Your task to perform on an android device: How much does the new iPad cost? Image 0: 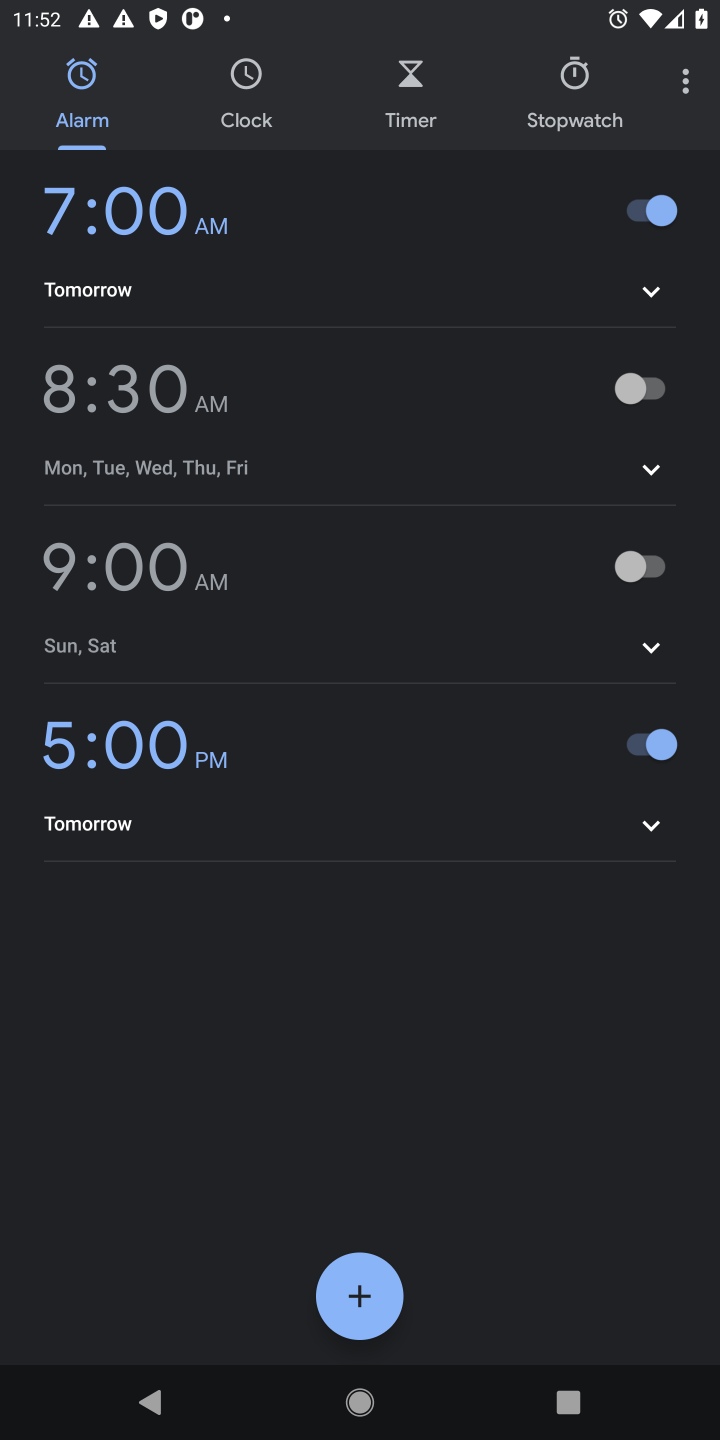
Step 0: press home button
Your task to perform on an android device: How much does the new iPad cost? Image 1: 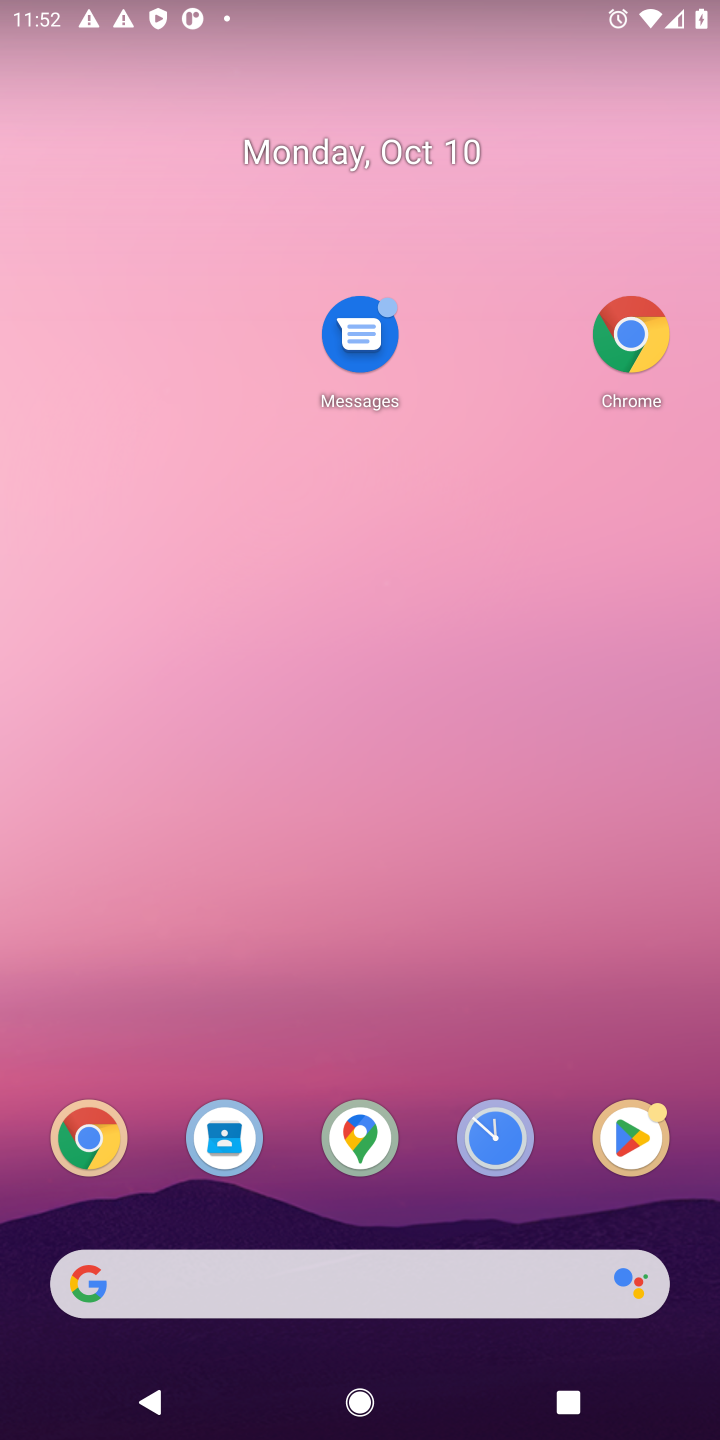
Step 1: click (626, 343)
Your task to perform on an android device: How much does the new iPad cost? Image 2: 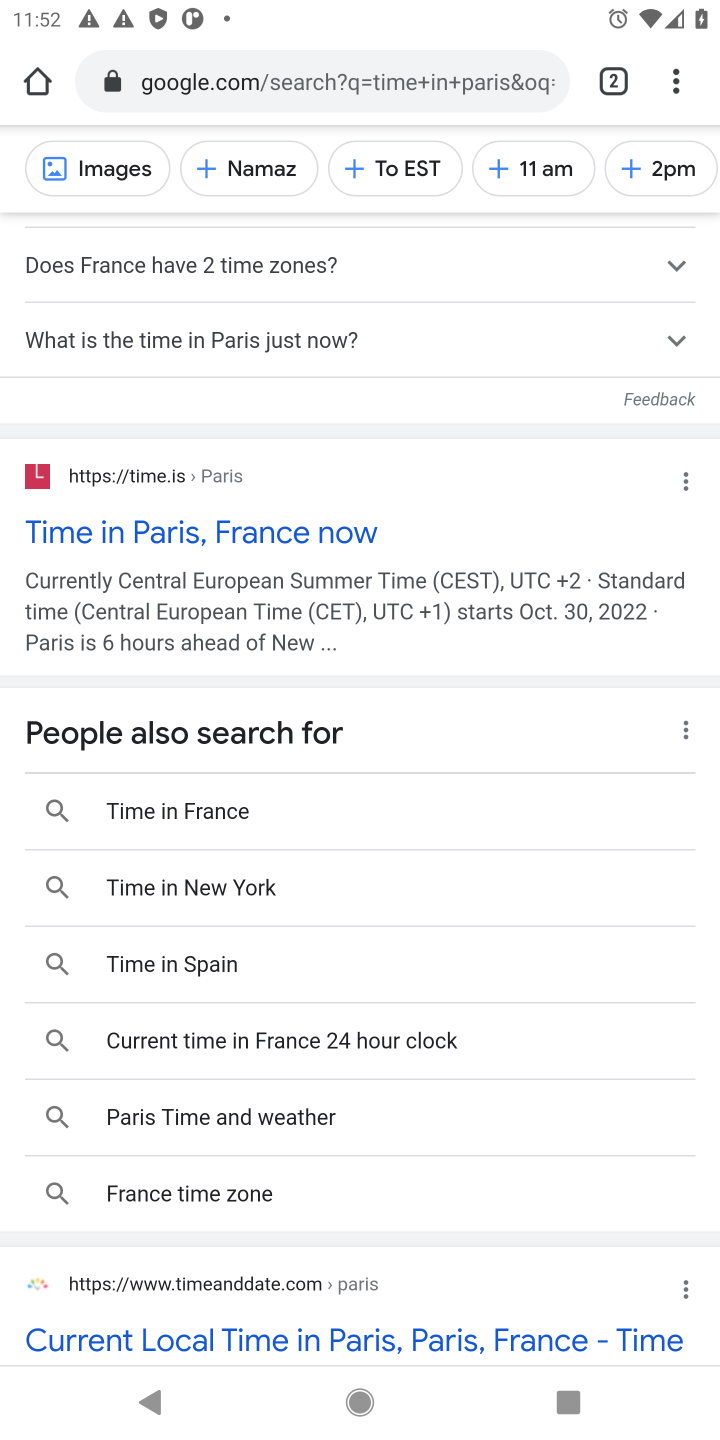
Step 2: click (282, 84)
Your task to perform on an android device: How much does the new iPad cost? Image 3: 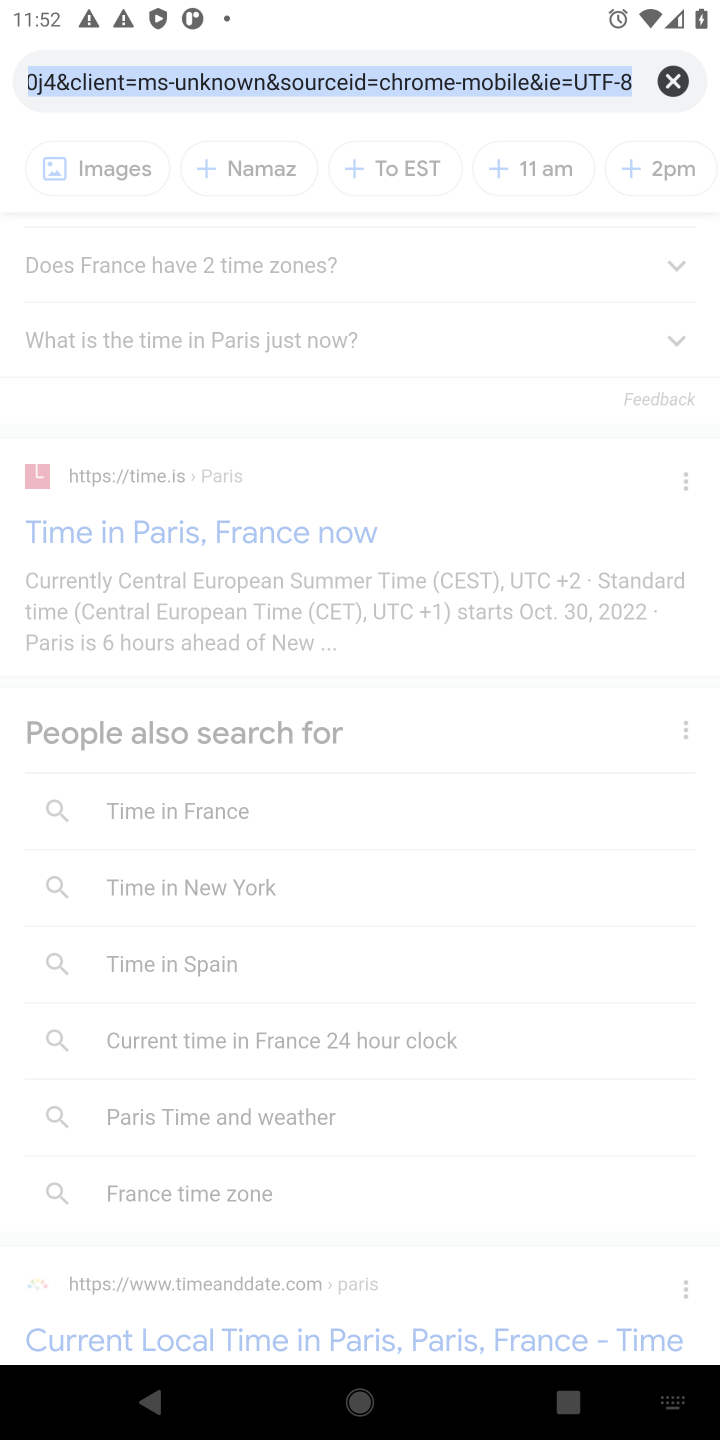
Step 3: type "cost of new ipad"
Your task to perform on an android device: How much does the new iPad cost? Image 4: 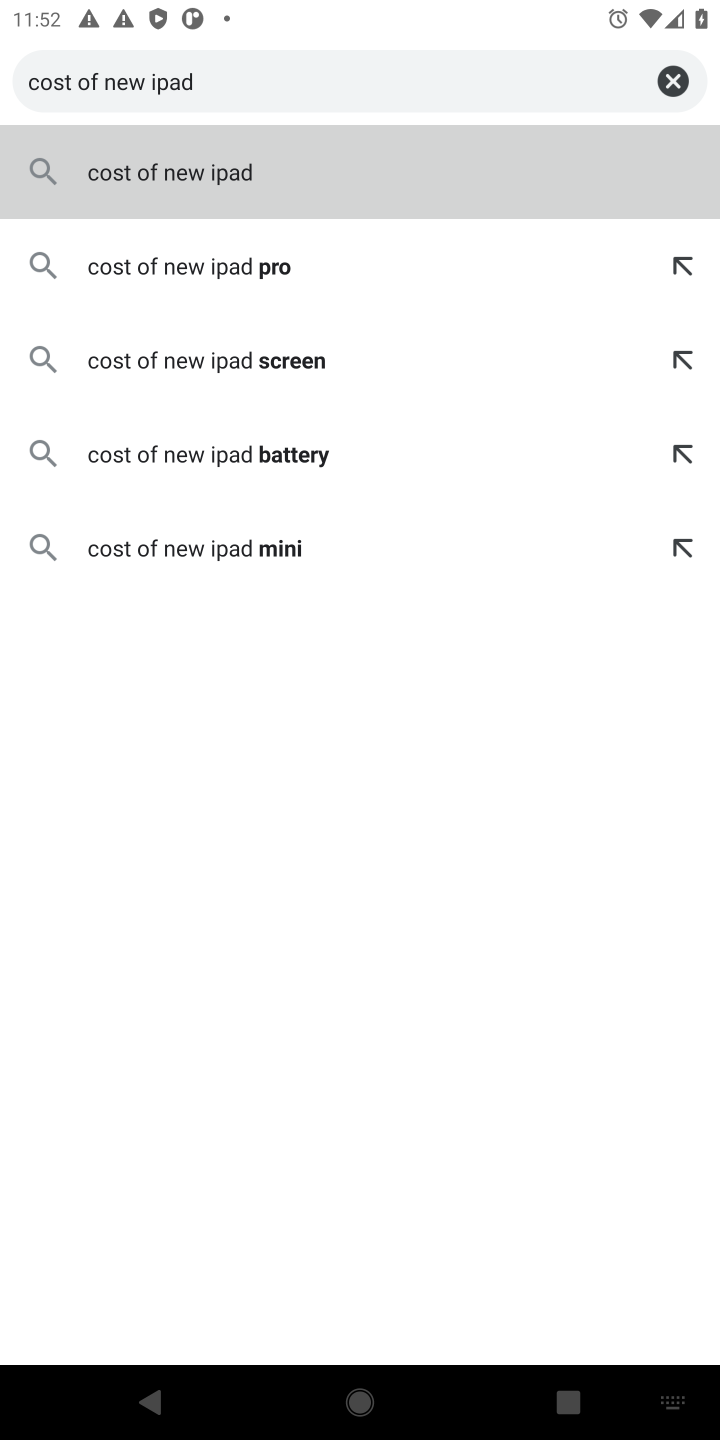
Step 4: type ""
Your task to perform on an android device: How much does the new iPad cost? Image 5: 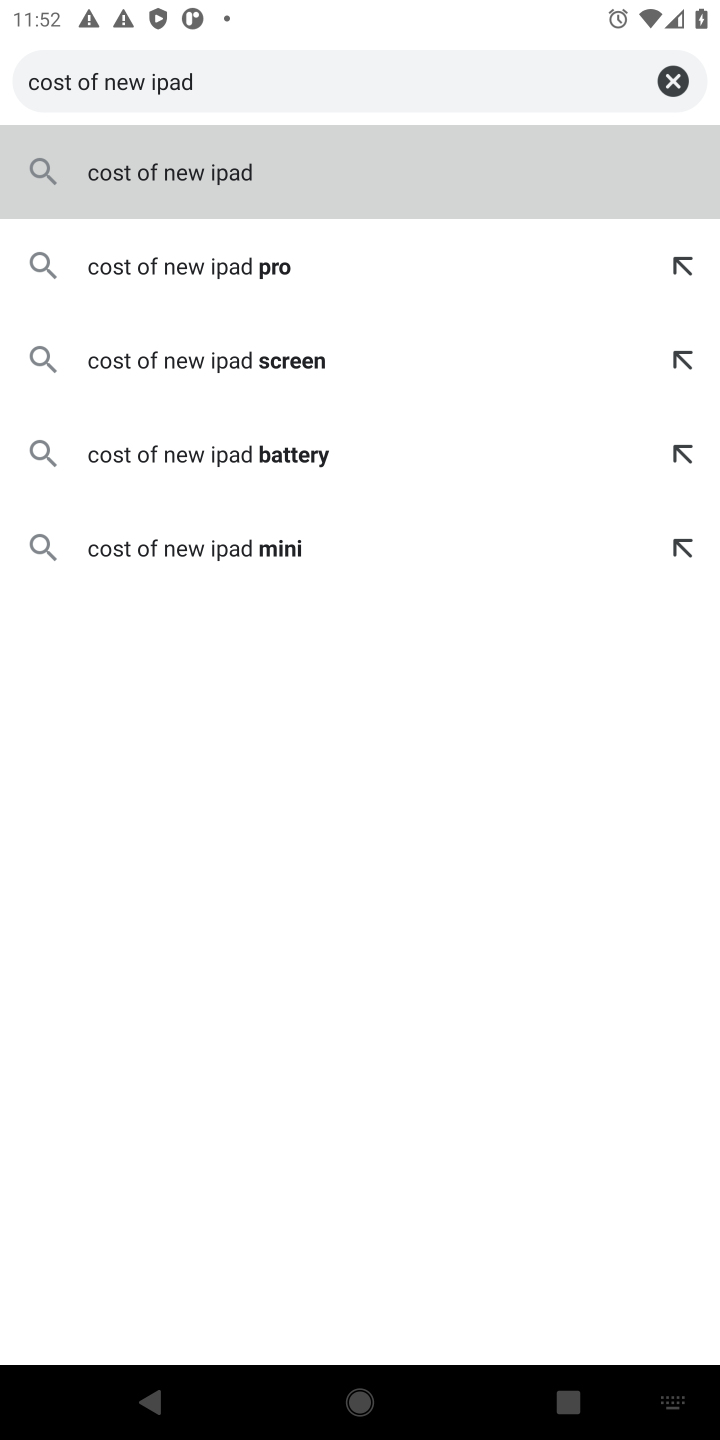
Step 5: press enter
Your task to perform on an android device: How much does the new iPad cost? Image 6: 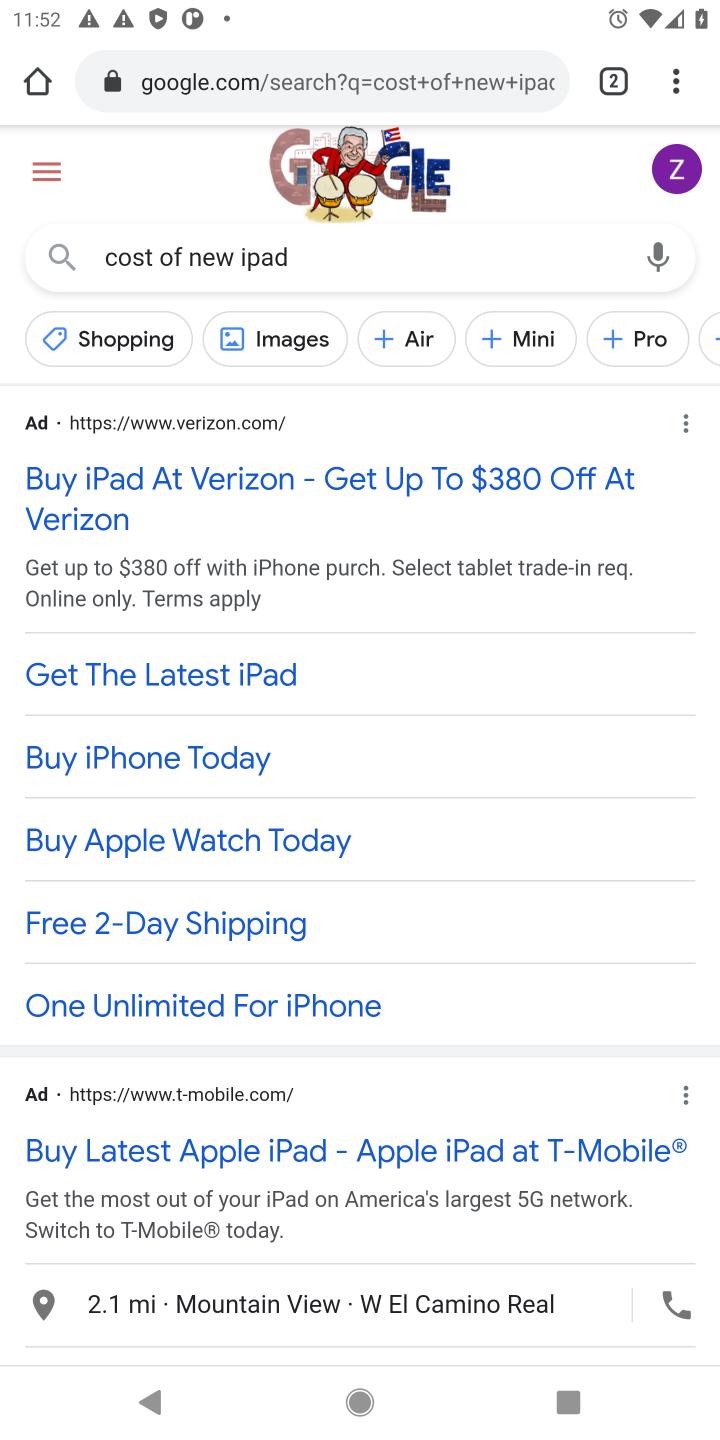
Step 6: click (149, 341)
Your task to perform on an android device: How much does the new iPad cost? Image 7: 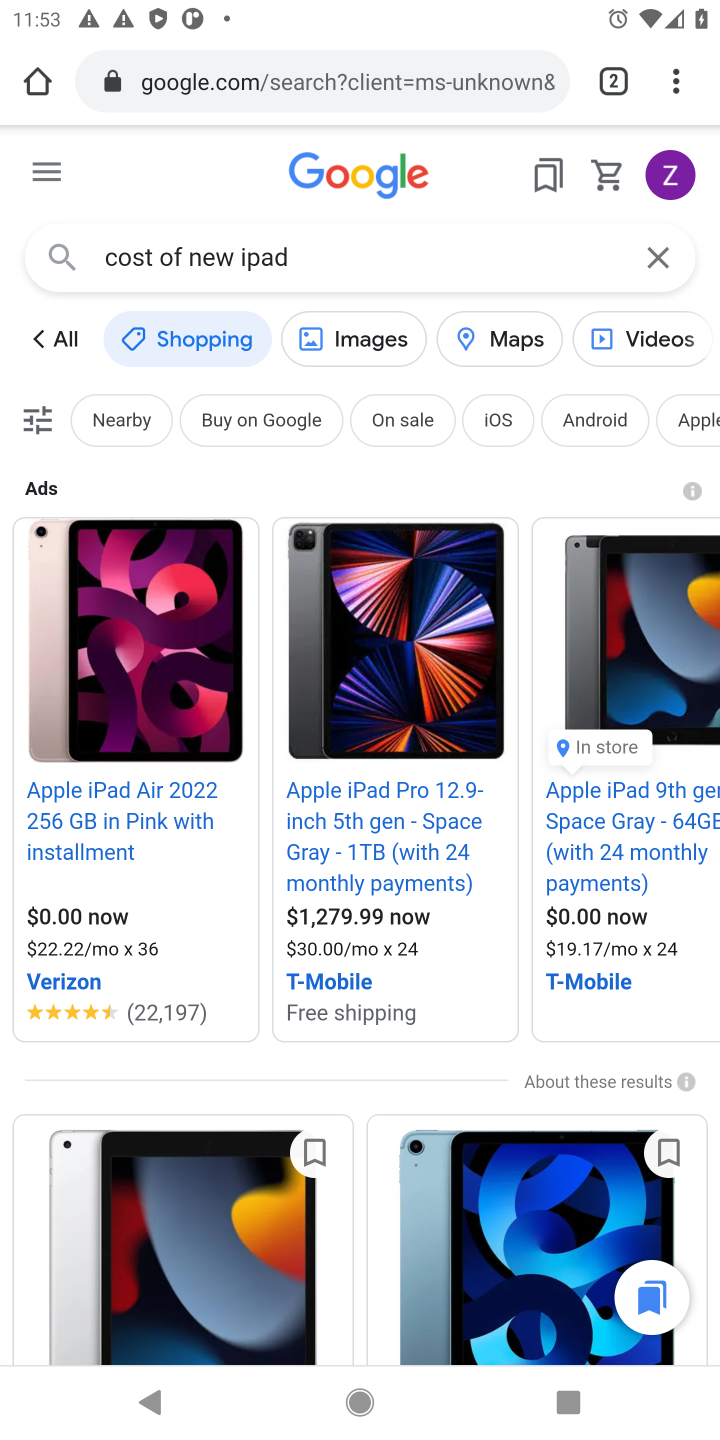
Step 7: task complete